Your task to perform on an android device: What's on the menu at Denny's? Image 0: 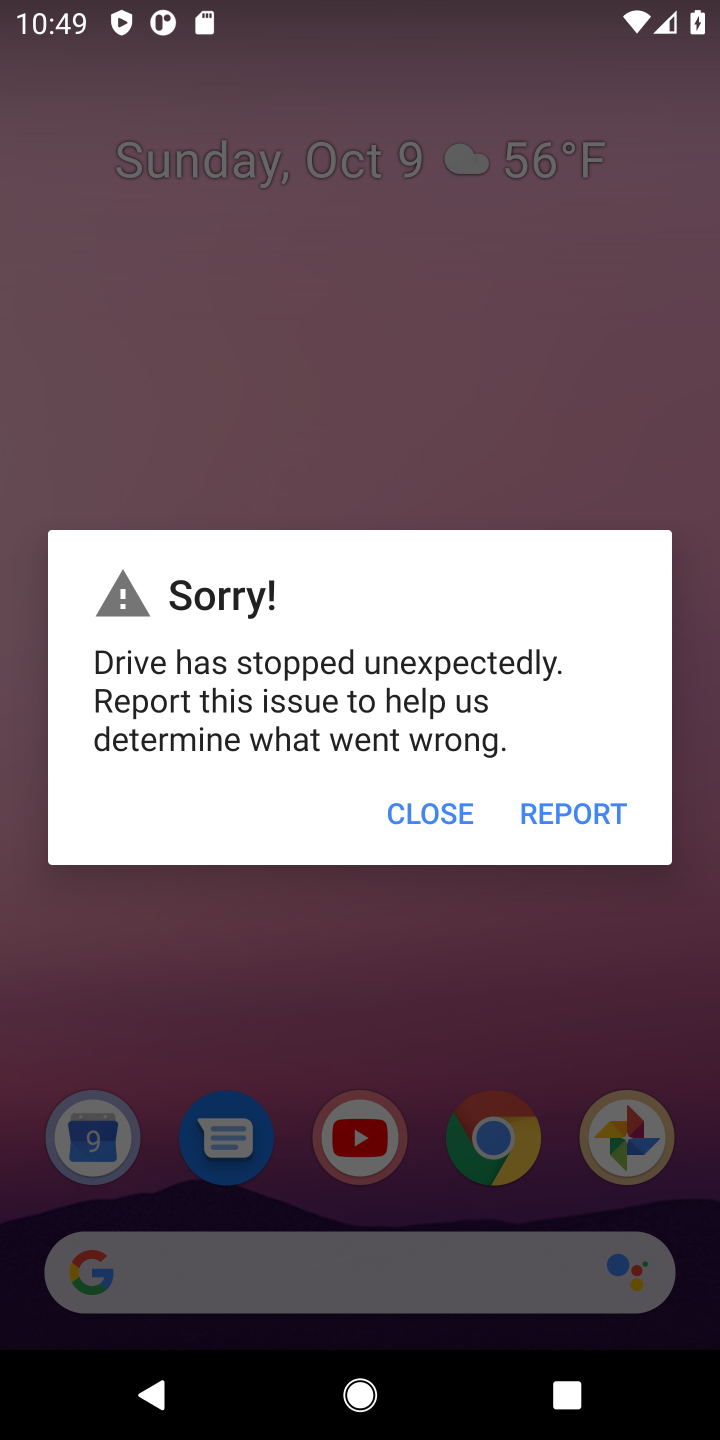
Step 0: click (452, 817)
Your task to perform on an android device: What's on the menu at Denny's? Image 1: 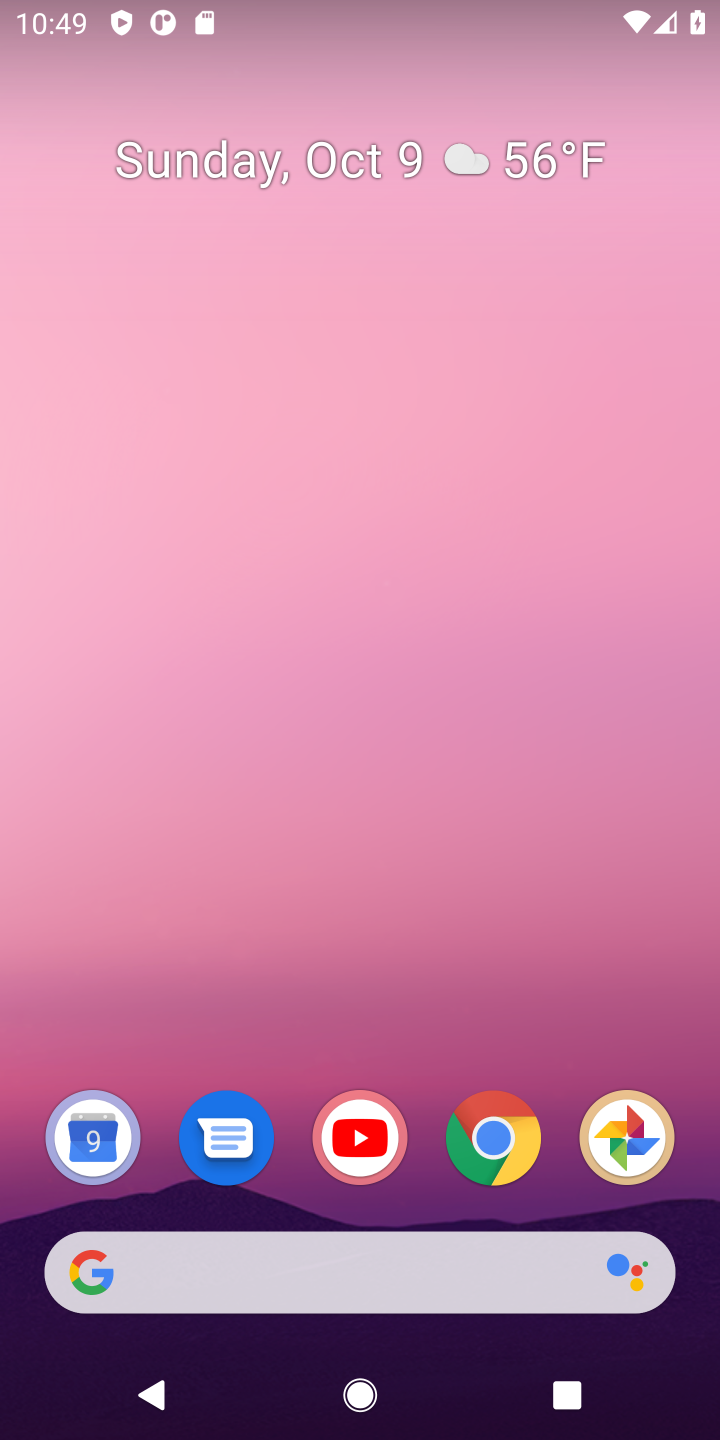
Step 1: drag from (412, 1078) to (413, 90)
Your task to perform on an android device: What's on the menu at Denny's? Image 2: 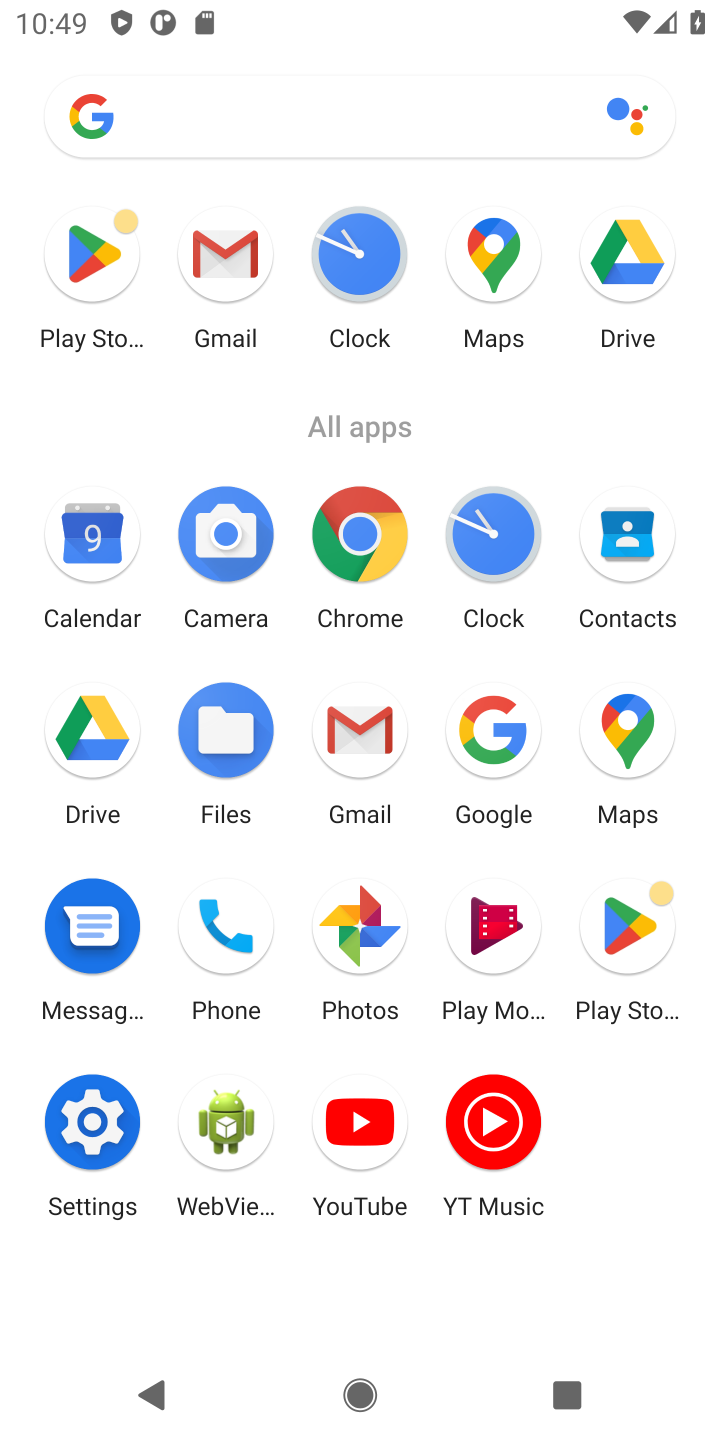
Step 2: click (362, 543)
Your task to perform on an android device: What's on the menu at Denny's? Image 3: 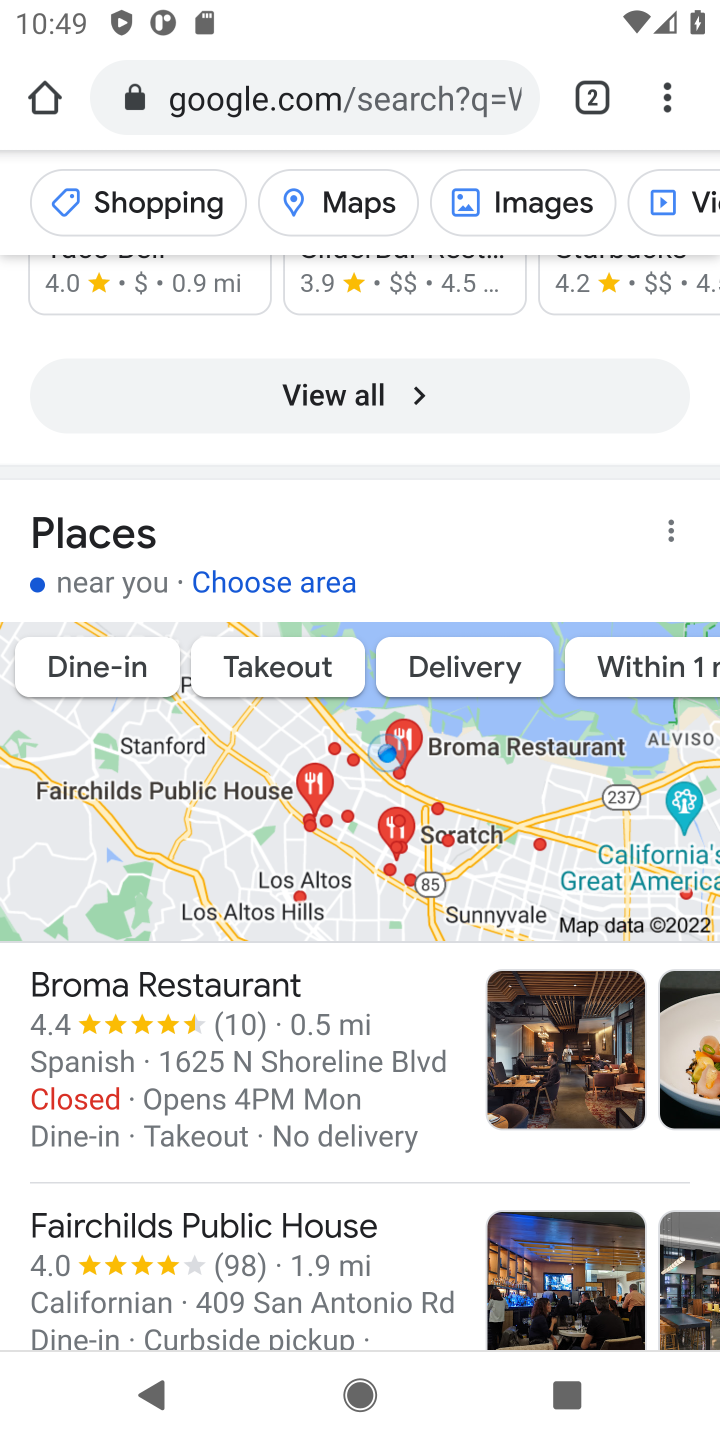
Step 3: click (225, 105)
Your task to perform on an android device: What's on the menu at Denny's? Image 4: 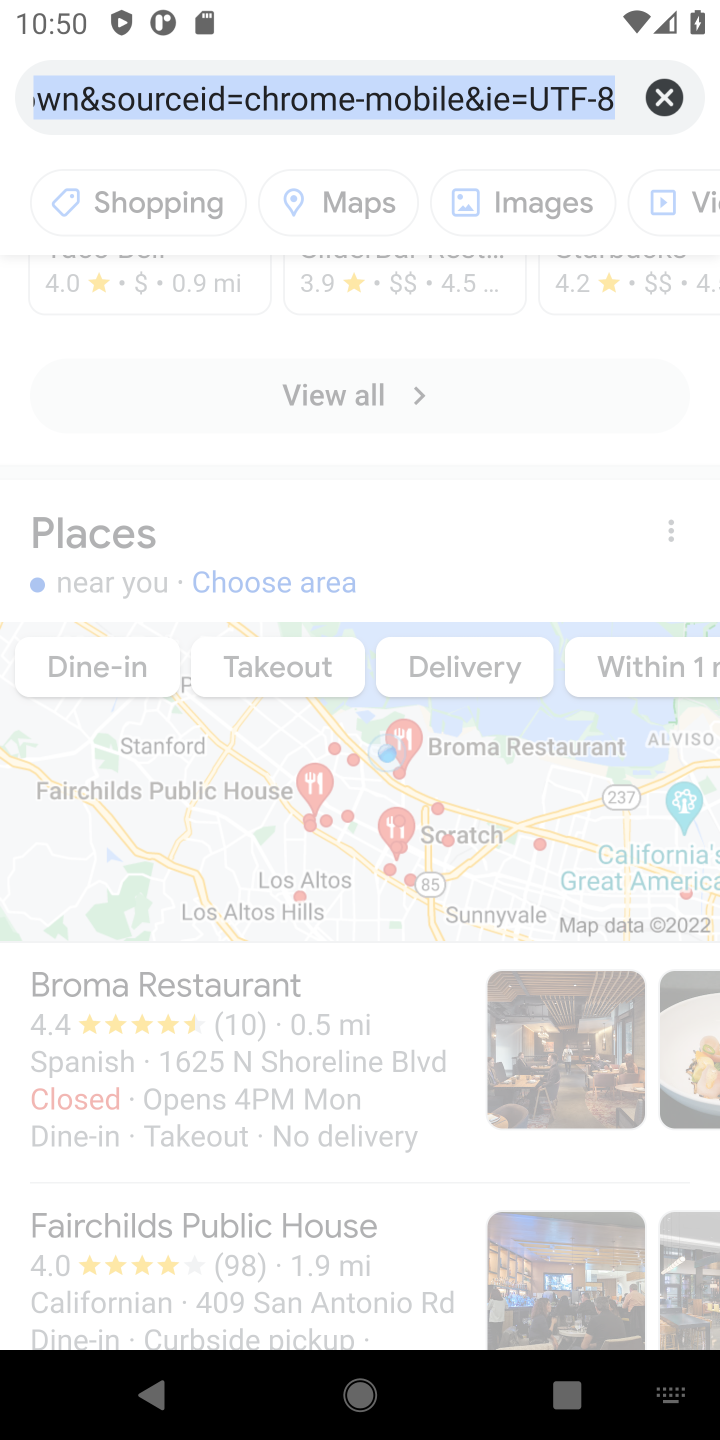
Step 4: click (656, 92)
Your task to perform on an android device: What's on the menu at Denny's? Image 5: 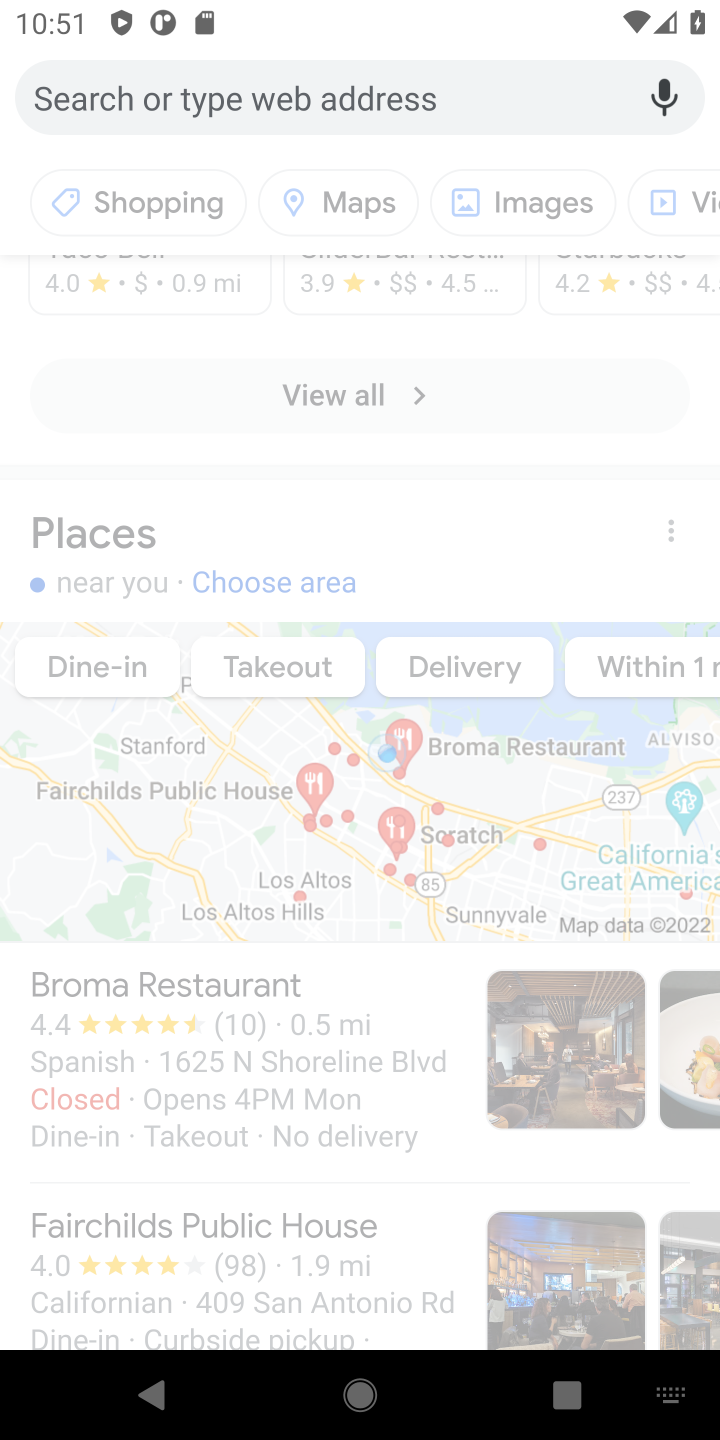
Step 5: type "What's on the menu at Denny's?"
Your task to perform on an android device: What's on the menu at Denny's? Image 6: 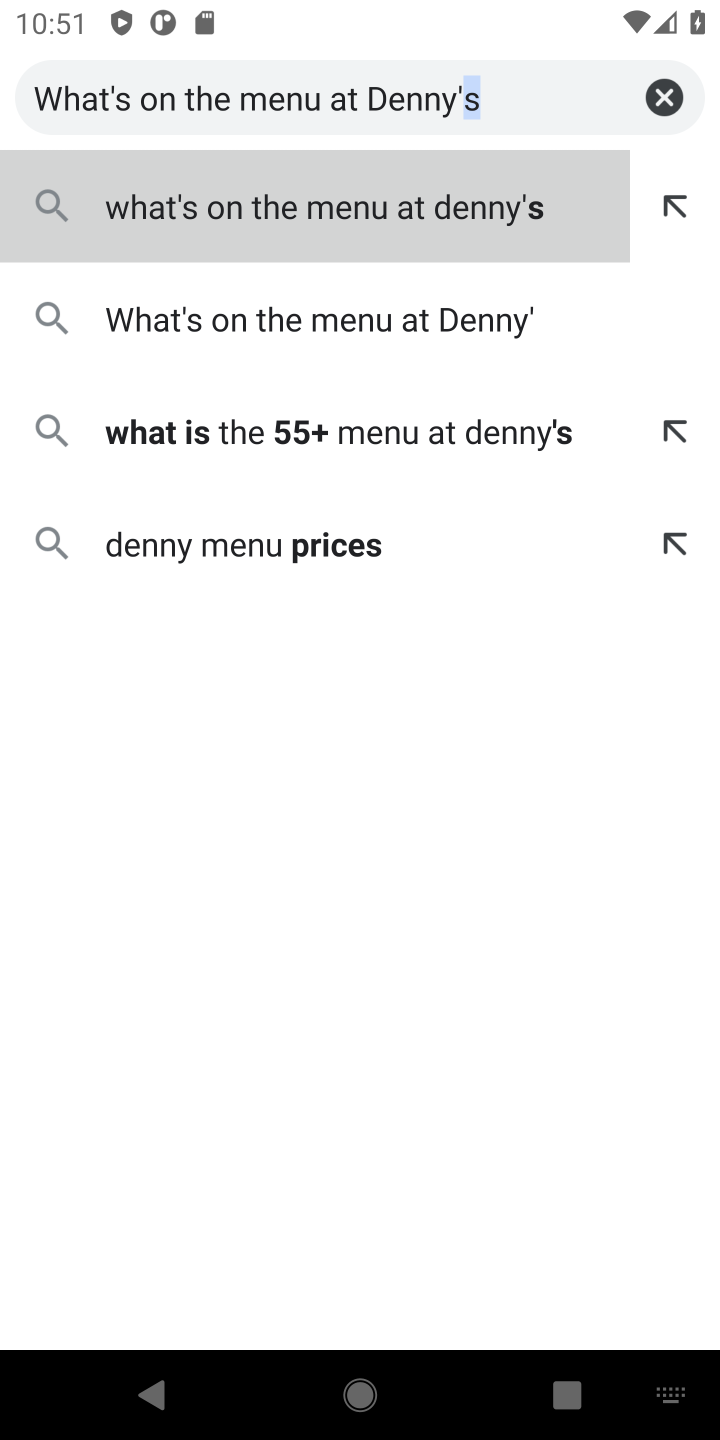
Step 6: click (270, 216)
Your task to perform on an android device: What's on the menu at Denny's? Image 7: 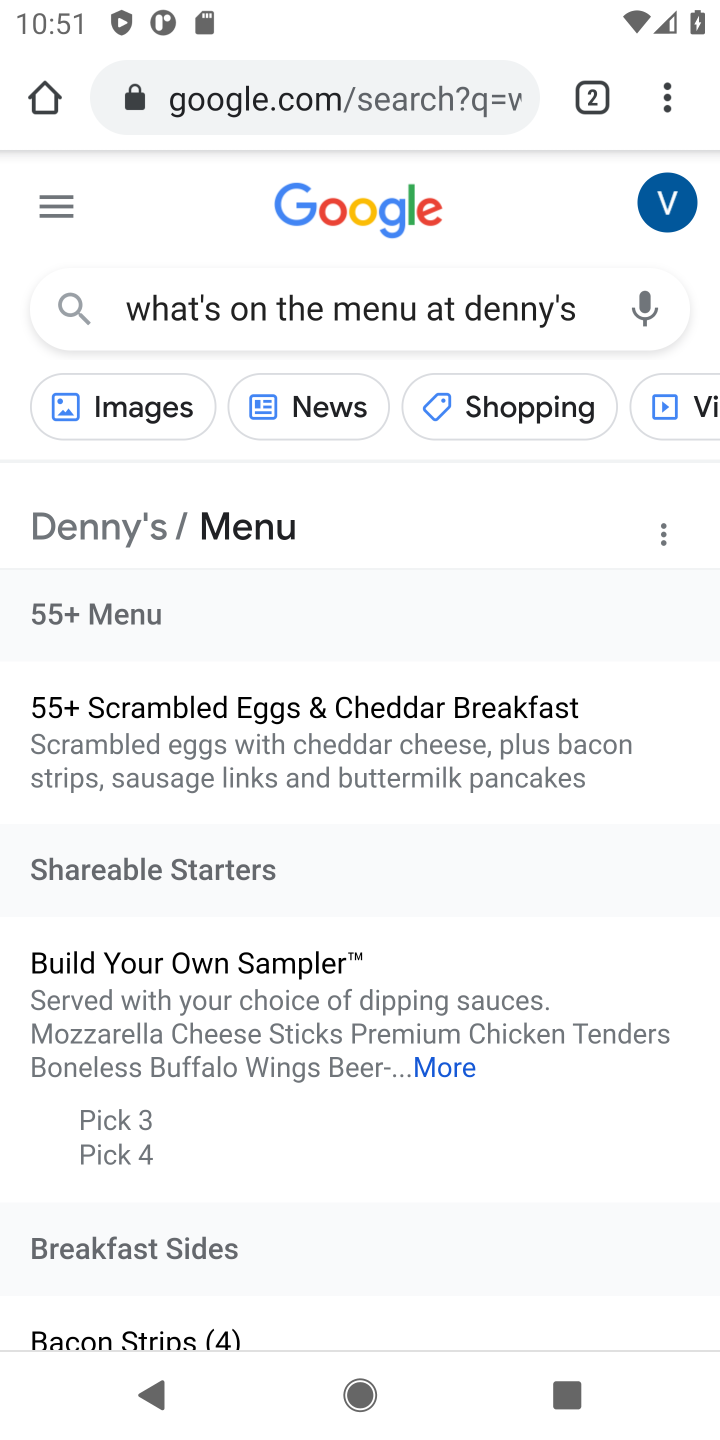
Step 7: task complete